Your task to perform on an android device: open wifi settings Image 0: 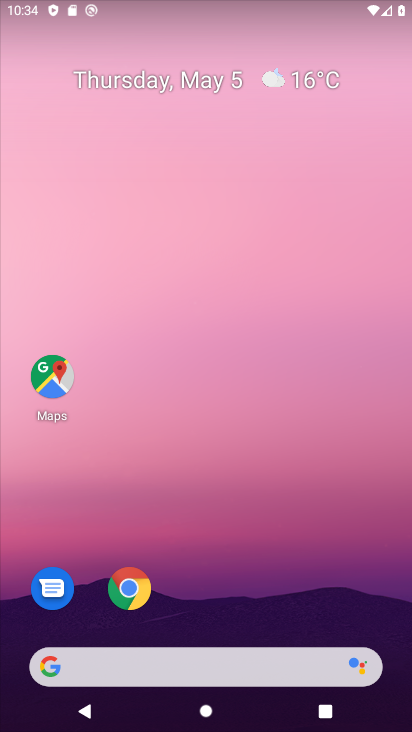
Step 0: drag from (282, 574) to (324, 142)
Your task to perform on an android device: open wifi settings Image 1: 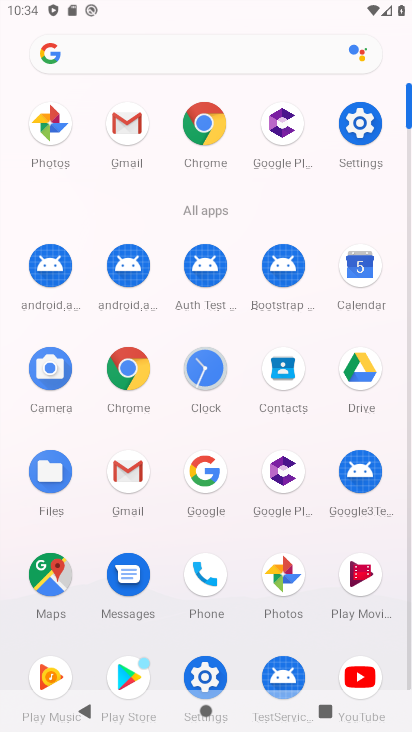
Step 1: click (353, 136)
Your task to perform on an android device: open wifi settings Image 2: 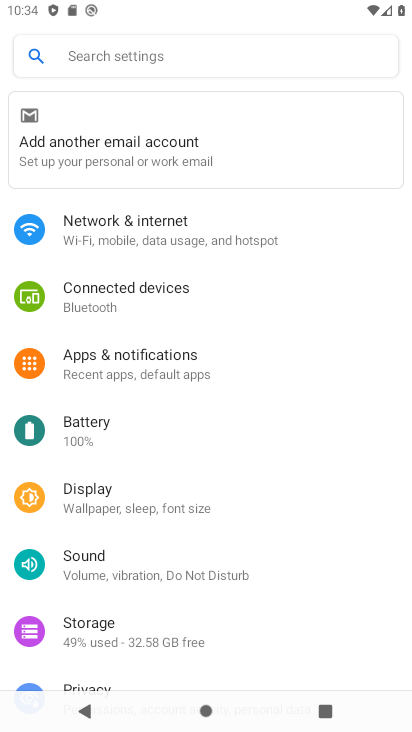
Step 2: click (249, 239)
Your task to perform on an android device: open wifi settings Image 3: 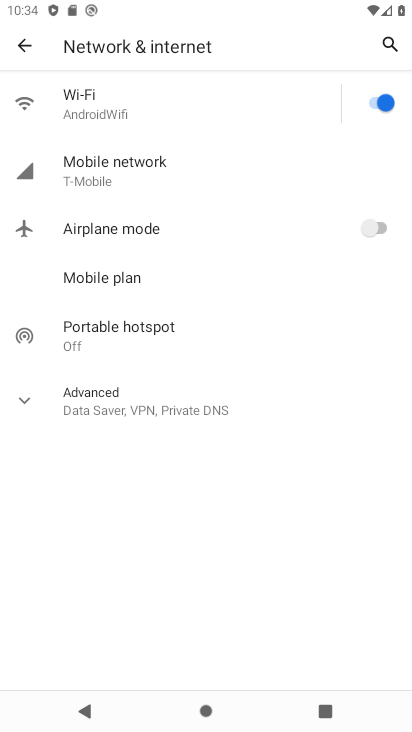
Step 3: click (163, 116)
Your task to perform on an android device: open wifi settings Image 4: 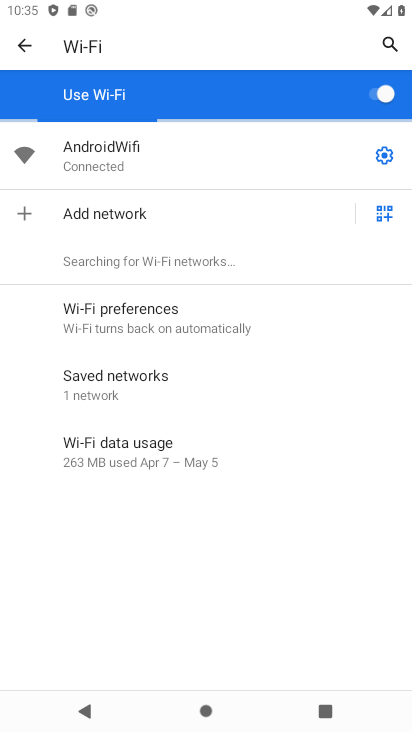
Step 4: task complete